Your task to perform on an android device: empty trash in the gmail app Image 0: 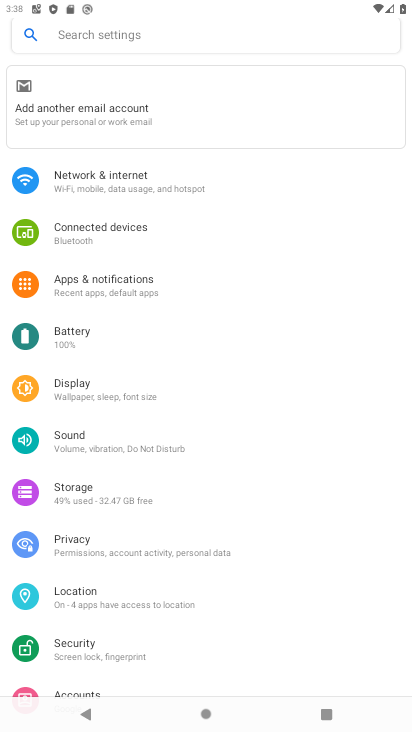
Step 0: press home button
Your task to perform on an android device: empty trash in the gmail app Image 1: 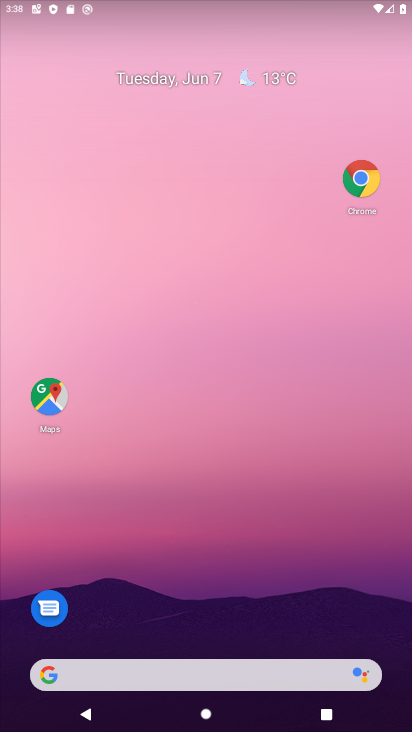
Step 1: drag from (333, 626) to (394, 522)
Your task to perform on an android device: empty trash in the gmail app Image 2: 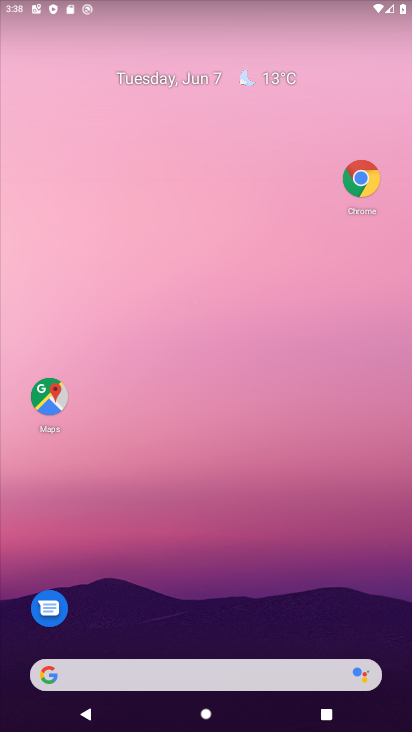
Step 2: drag from (172, 651) to (237, 230)
Your task to perform on an android device: empty trash in the gmail app Image 3: 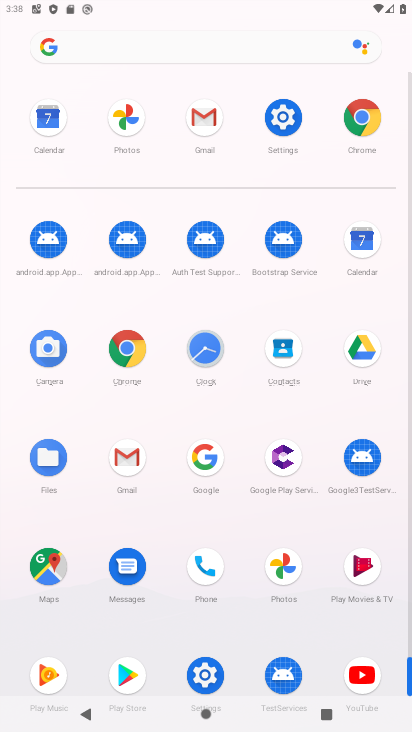
Step 3: click (137, 456)
Your task to perform on an android device: empty trash in the gmail app Image 4: 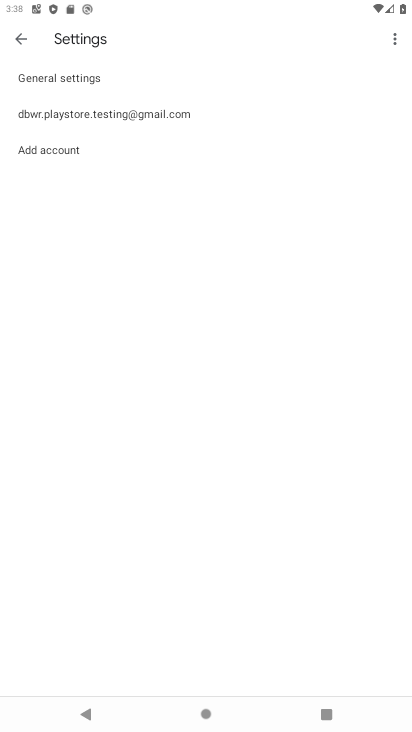
Step 4: click (18, 42)
Your task to perform on an android device: empty trash in the gmail app Image 5: 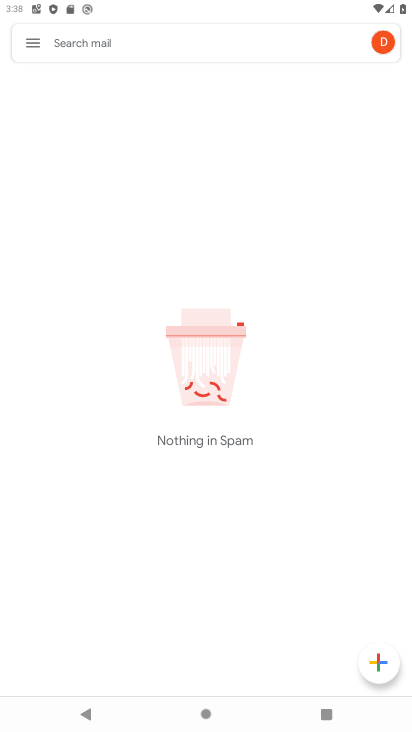
Step 5: click (29, 38)
Your task to perform on an android device: empty trash in the gmail app Image 6: 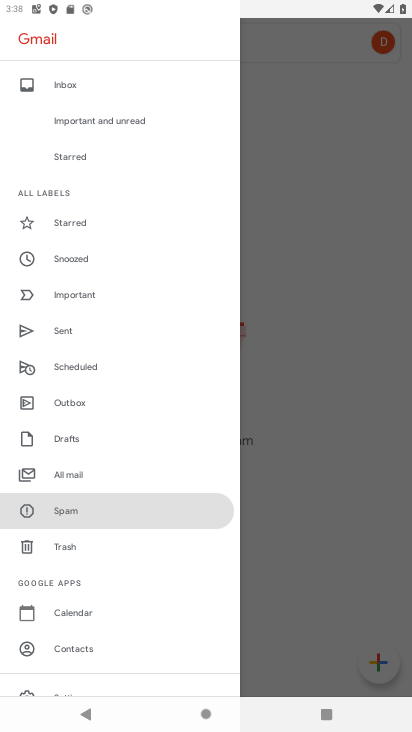
Step 6: click (93, 543)
Your task to perform on an android device: empty trash in the gmail app Image 7: 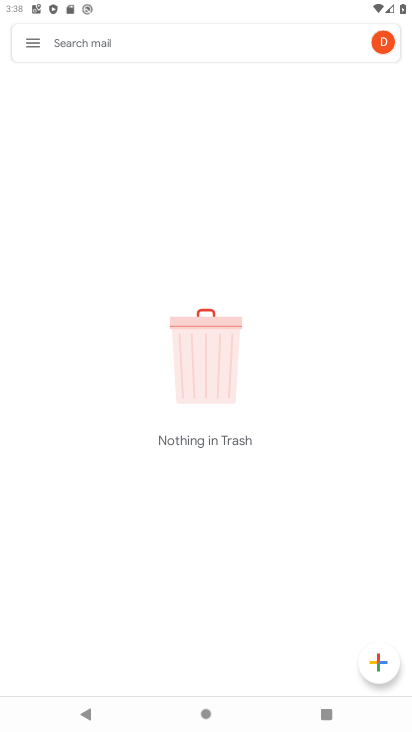
Step 7: task complete